Your task to perform on an android device: Open wifi settings Image 0: 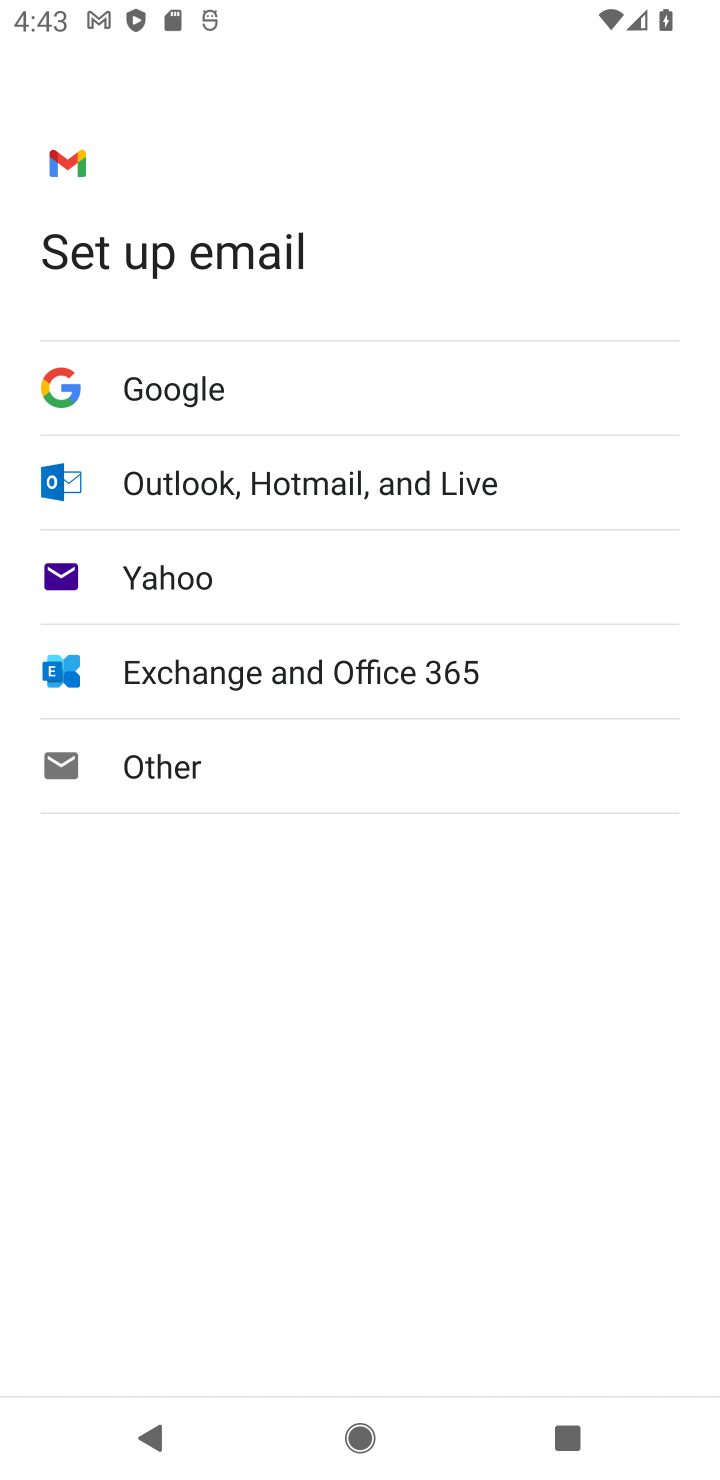
Step 0: task complete